Your task to perform on an android device: When is my next meeting? Image 0: 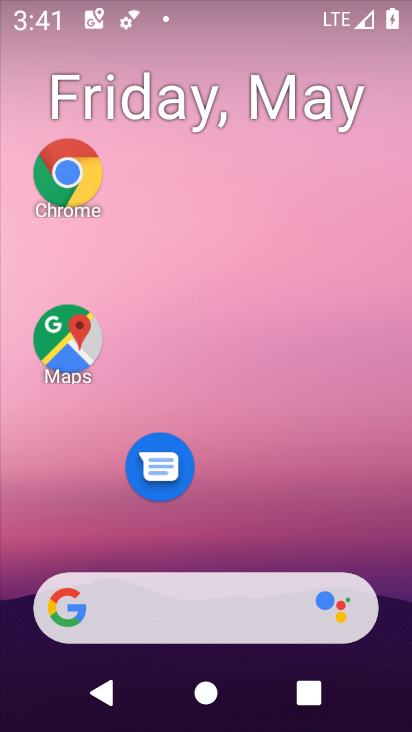
Step 0: drag from (268, 538) to (194, 52)
Your task to perform on an android device: When is my next meeting? Image 1: 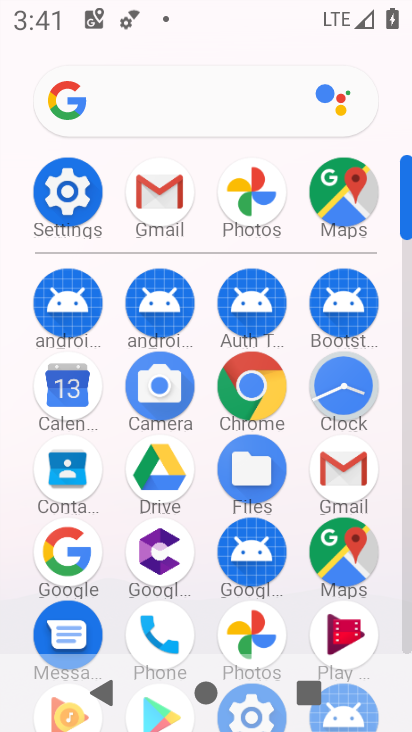
Step 1: click (53, 383)
Your task to perform on an android device: When is my next meeting? Image 2: 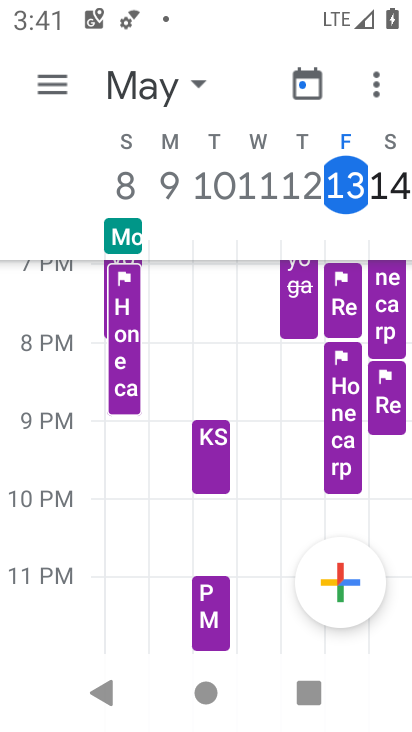
Step 2: task complete